Your task to perform on an android device: Do I have any events this weekend? Image 0: 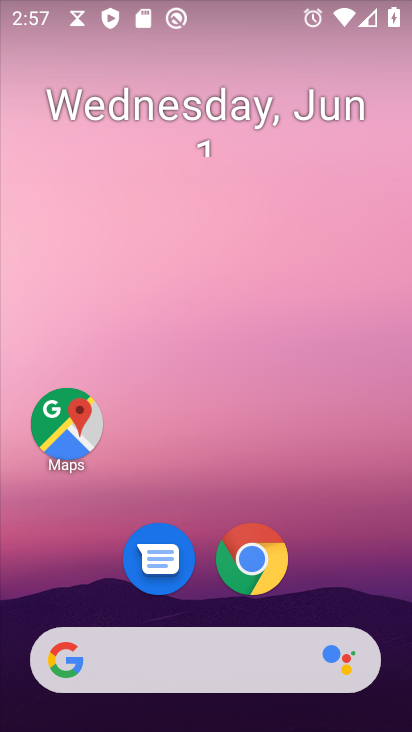
Step 0: drag from (307, 584) to (288, 27)
Your task to perform on an android device: Do I have any events this weekend? Image 1: 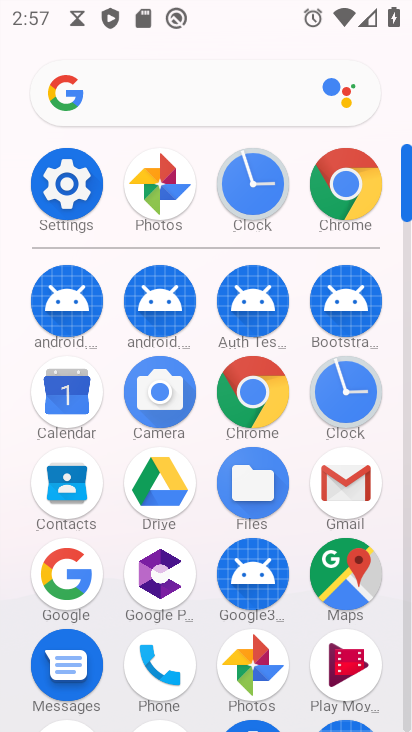
Step 1: click (60, 404)
Your task to perform on an android device: Do I have any events this weekend? Image 2: 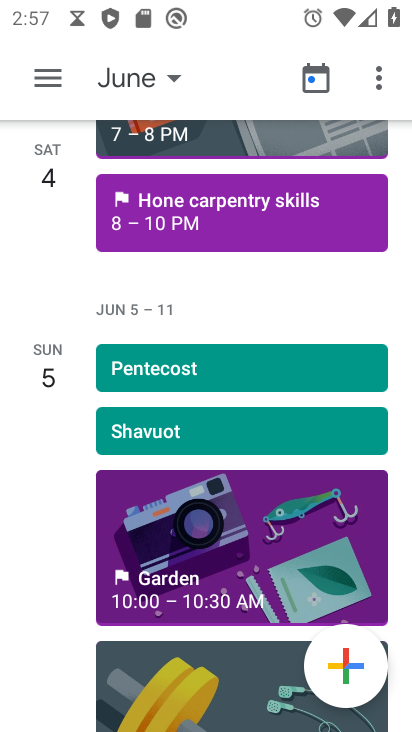
Step 2: click (126, 84)
Your task to perform on an android device: Do I have any events this weekend? Image 3: 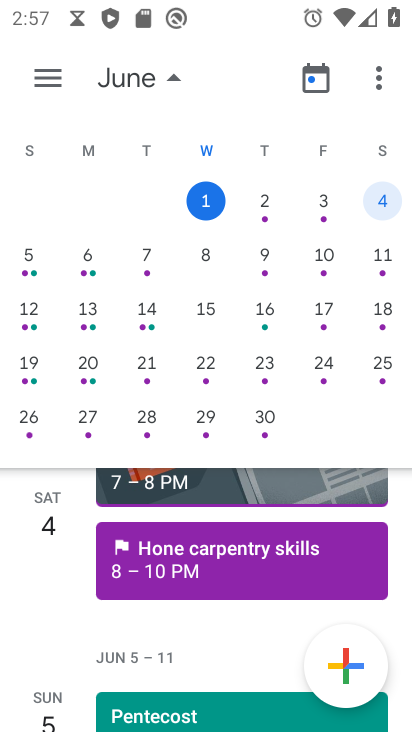
Step 3: click (393, 196)
Your task to perform on an android device: Do I have any events this weekend? Image 4: 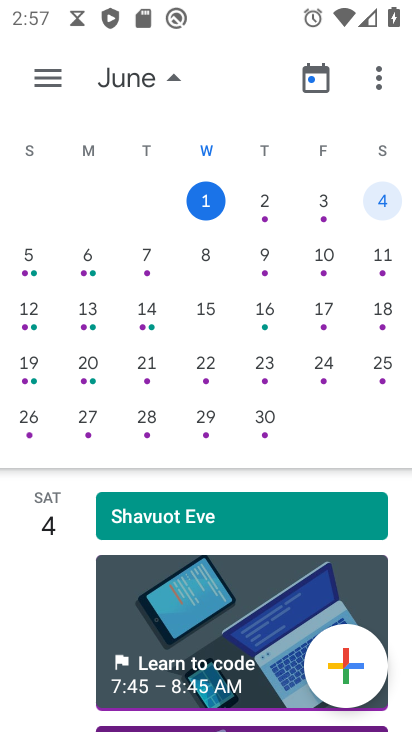
Step 4: task complete